Your task to perform on an android device: toggle sleep mode Image 0: 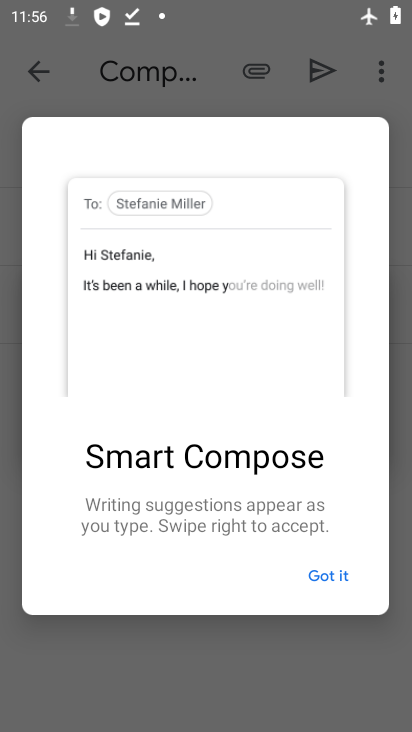
Step 0: press home button
Your task to perform on an android device: toggle sleep mode Image 1: 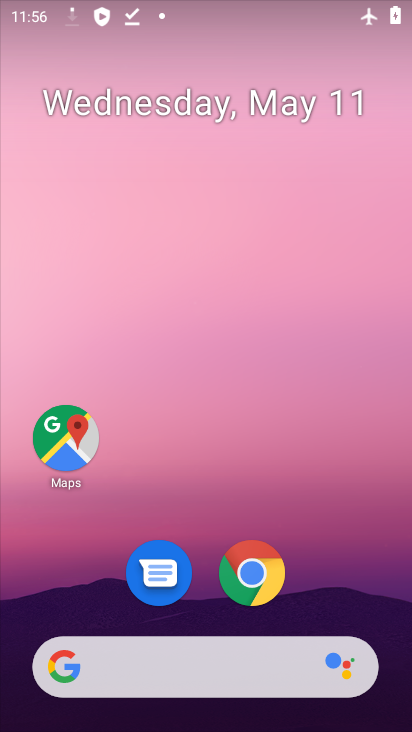
Step 1: drag from (312, 538) to (322, 190)
Your task to perform on an android device: toggle sleep mode Image 2: 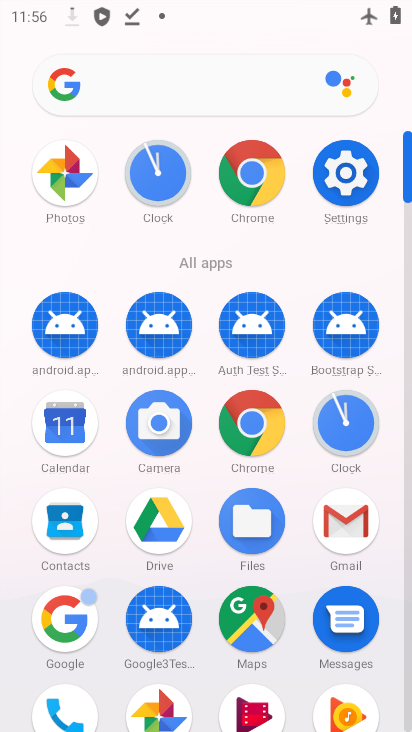
Step 2: drag from (206, 667) to (221, 309)
Your task to perform on an android device: toggle sleep mode Image 3: 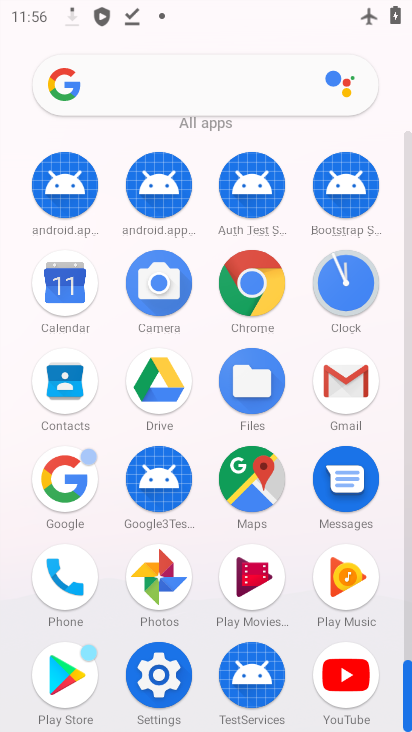
Step 3: click (166, 685)
Your task to perform on an android device: toggle sleep mode Image 4: 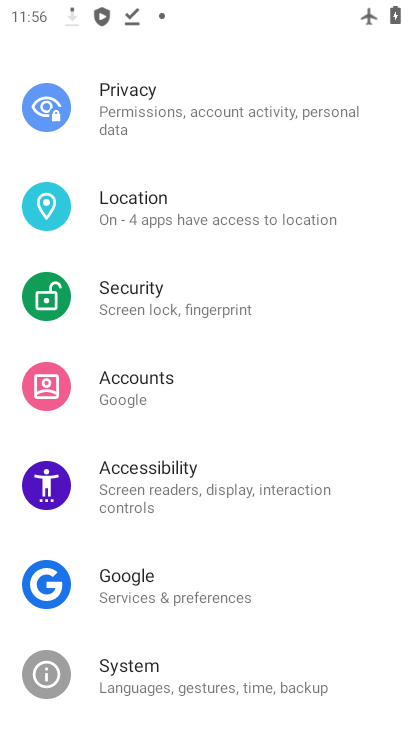
Step 4: drag from (276, 275) to (299, 605)
Your task to perform on an android device: toggle sleep mode Image 5: 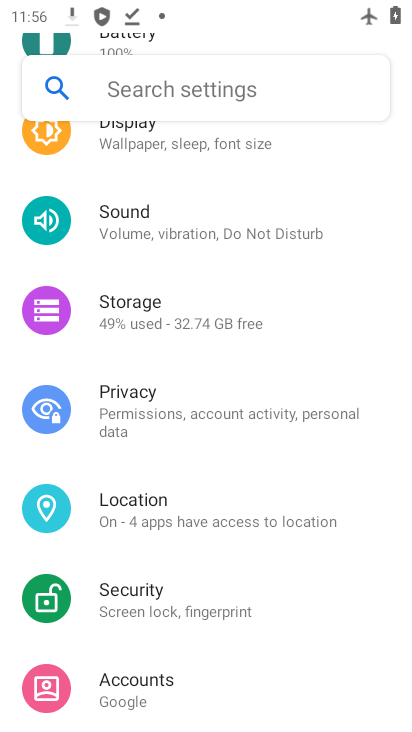
Step 5: click (178, 153)
Your task to perform on an android device: toggle sleep mode Image 6: 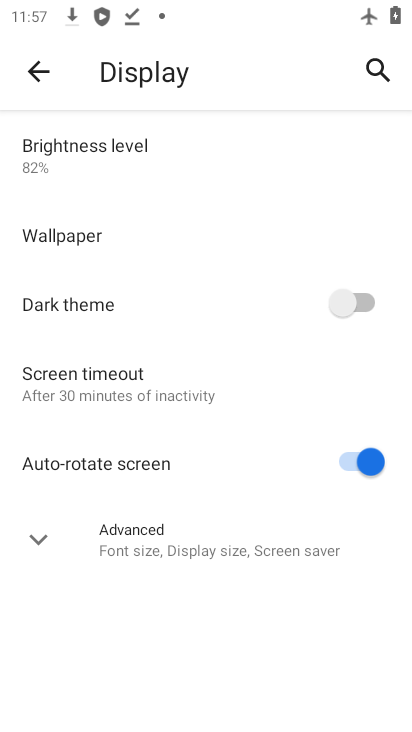
Step 6: click (40, 544)
Your task to perform on an android device: toggle sleep mode Image 7: 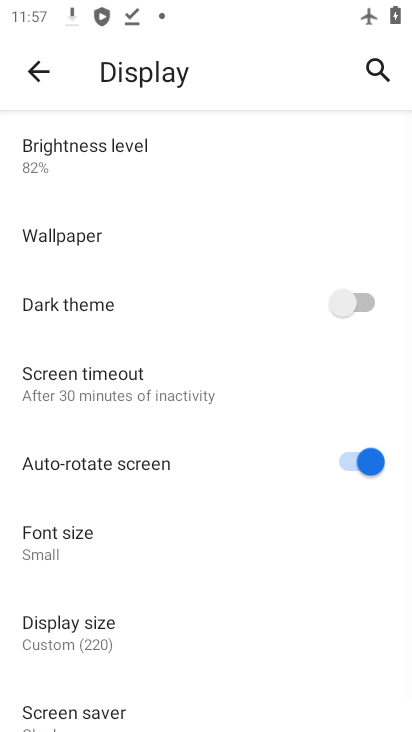
Step 7: task complete